Your task to perform on an android device: Find coffee shops on Maps Image 0: 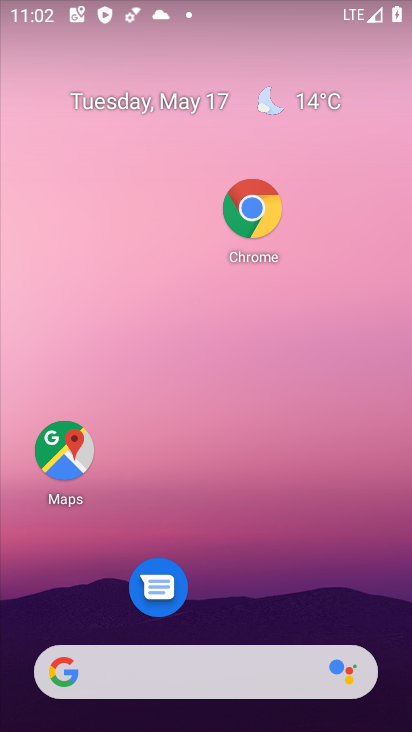
Step 0: click (66, 440)
Your task to perform on an android device: Find coffee shops on Maps Image 1: 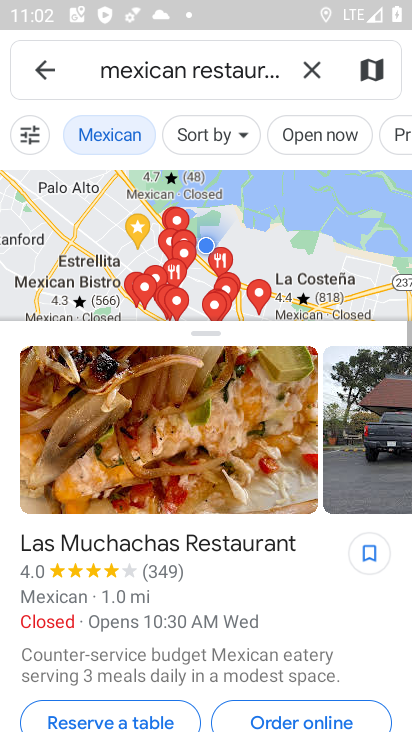
Step 1: click (313, 59)
Your task to perform on an android device: Find coffee shops on Maps Image 2: 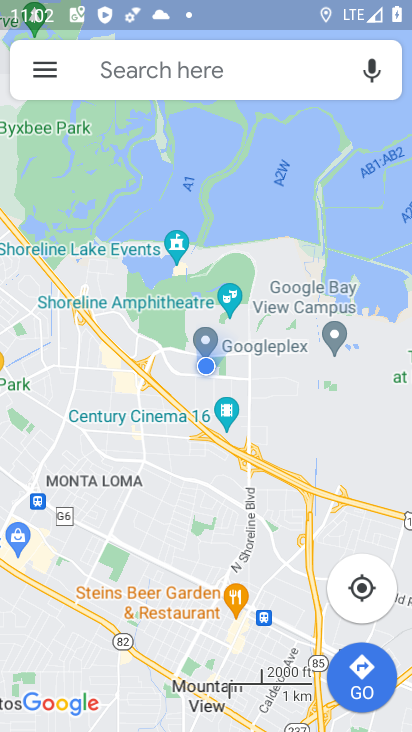
Step 2: click (254, 67)
Your task to perform on an android device: Find coffee shops on Maps Image 3: 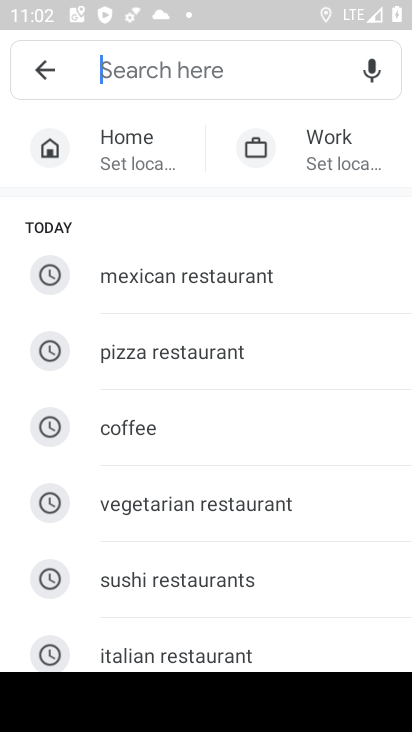
Step 3: type "Coffee shops"
Your task to perform on an android device: Find coffee shops on Maps Image 4: 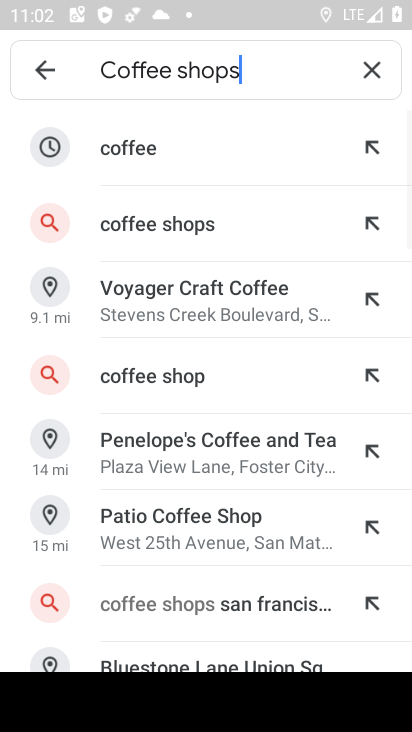
Step 4: click (275, 236)
Your task to perform on an android device: Find coffee shops on Maps Image 5: 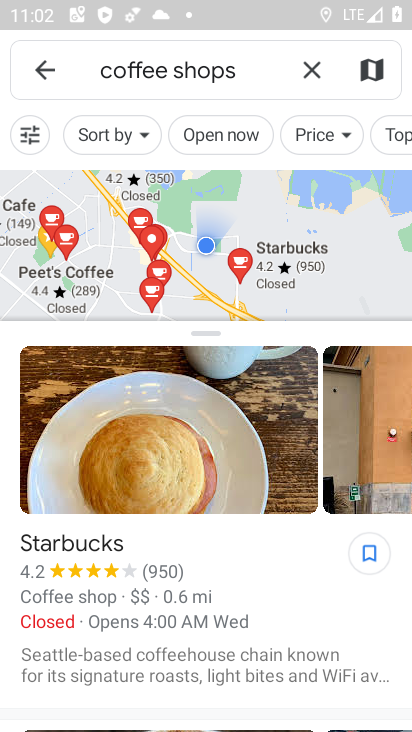
Step 5: task complete